Your task to perform on an android device: What is the recent news? Image 0: 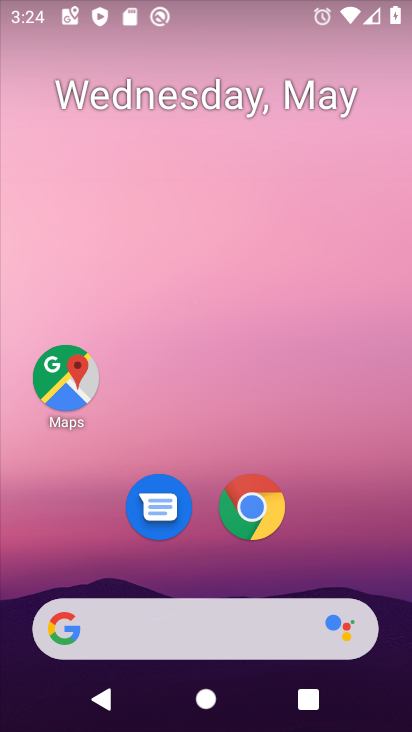
Step 0: drag from (219, 554) to (225, 85)
Your task to perform on an android device: What is the recent news? Image 1: 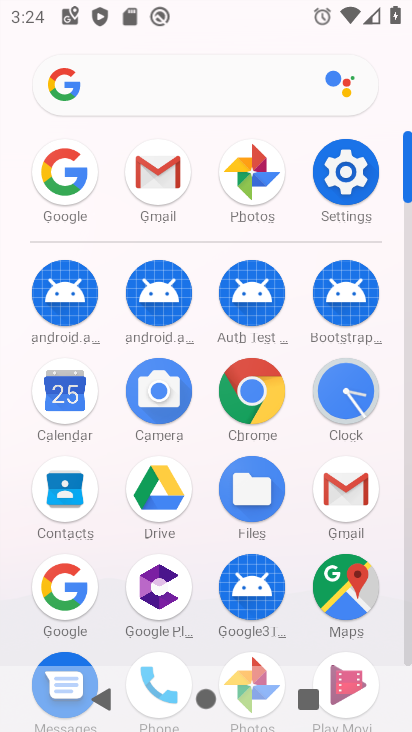
Step 1: click (74, 582)
Your task to perform on an android device: What is the recent news? Image 2: 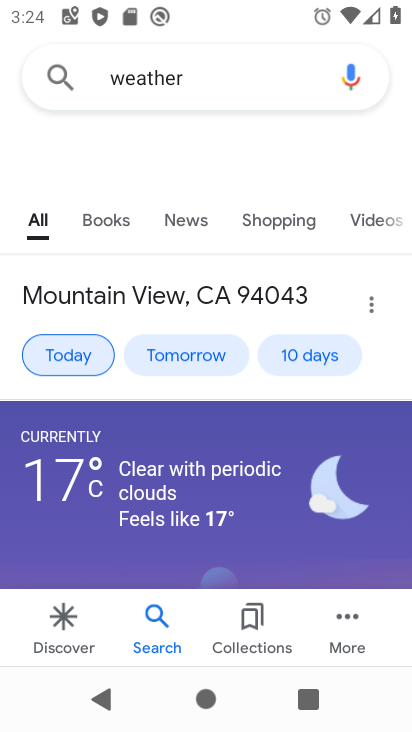
Step 2: click (224, 81)
Your task to perform on an android device: What is the recent news? Image 3: 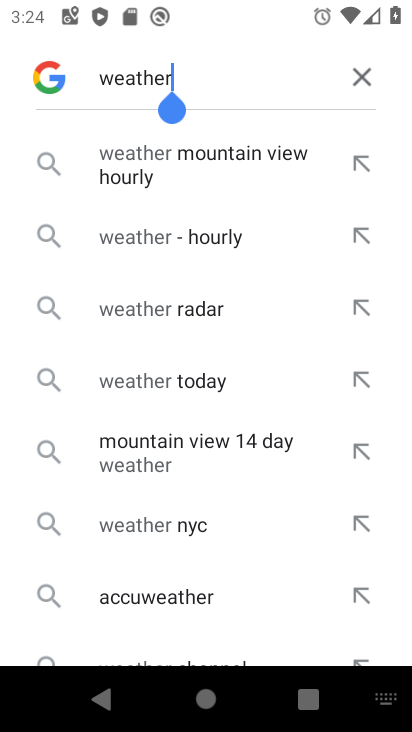
Step 3: click (355, 78)
Your task to perform on an android device: What is the recent news? Image 4: 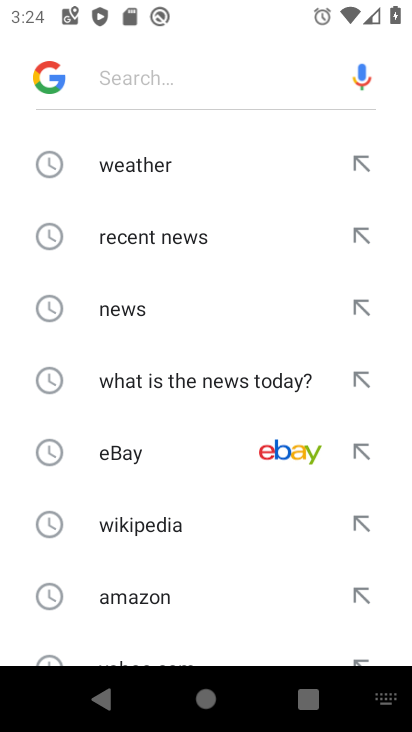
Step 4: click (143, 238)
Your task to perform on an android device: What is the recent news? Image 5: 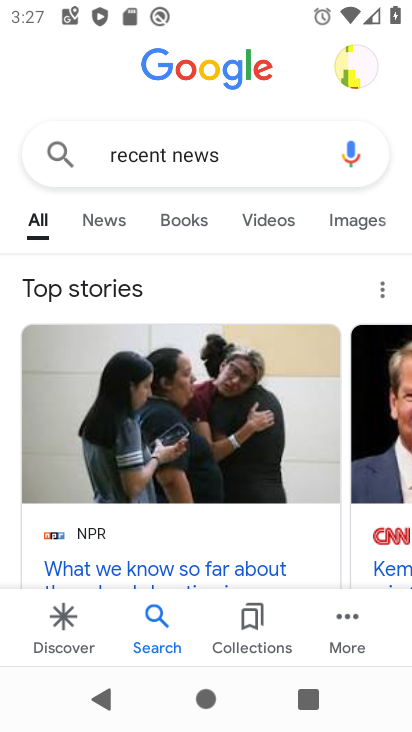
Step 5: task complete